Your task to perform on an android device: Add "logitech g pro" to the cart on walmart, then select checkout. Image 0: 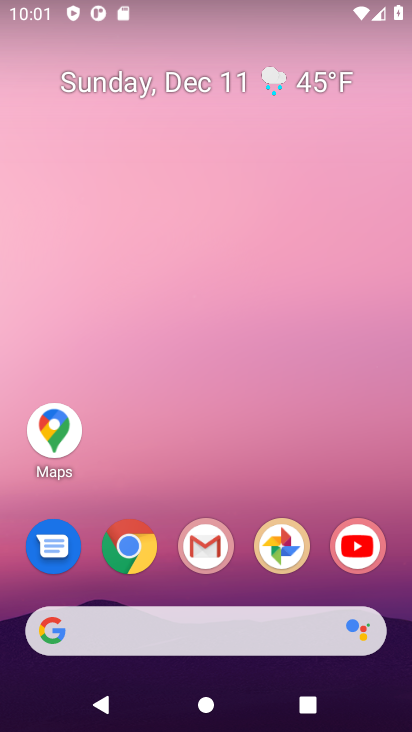
Step 0: click (127, 548)
Your task to perform on an android device: Add "logitech g pro" to the cart on walmart, then select checkout. Image 1: 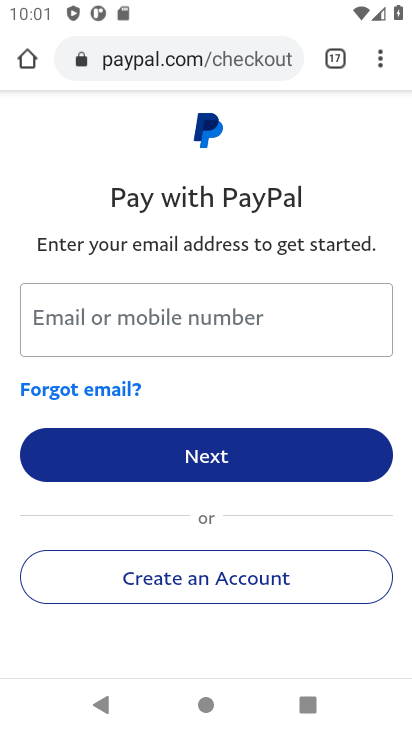
Step 1: click (191, 58)
Your task to perform on an android device: Add "logitech g pro" to the cart on walmart, then select checkout. Image 2: 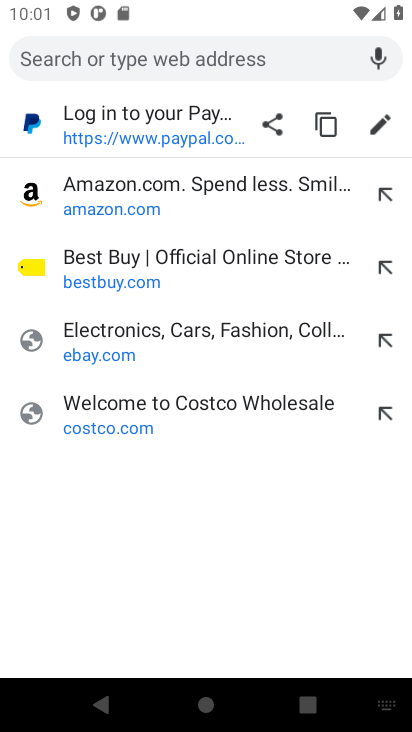
Step 2: type "walmart.com"
Your task to perform on an android device: Add "logitech g pro" to the cart on walmart, then select checkout. Image 3: 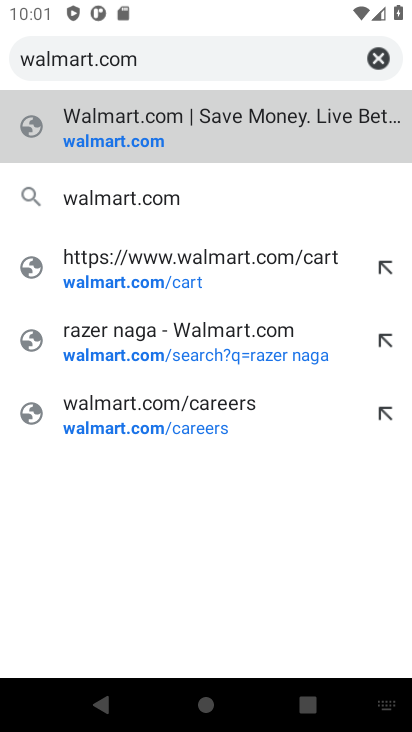
Step 3: click (138, 144)
Your task to perform on an android device: Add "logitech g pro" to the cart on walmart, then select checkout. Image 4: 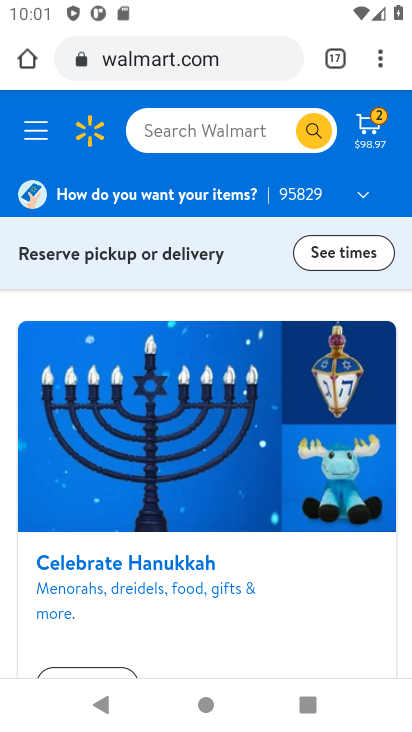
Step 4: click (157, 123)
Your task to perform on an android device: Add "logitech g pro" to the cart on walmart, then select checkout. Image 5: 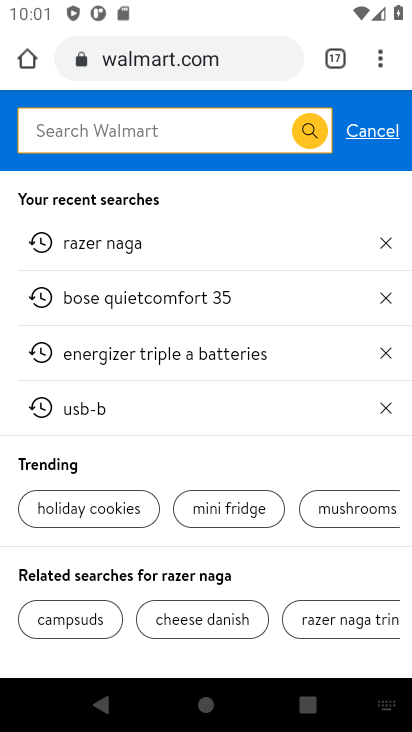
Step 5: type "logitech g pro"
Your task to perform on an android device: Add "logitech g pro" to the cart on walmart, then select checkout. Image 6: 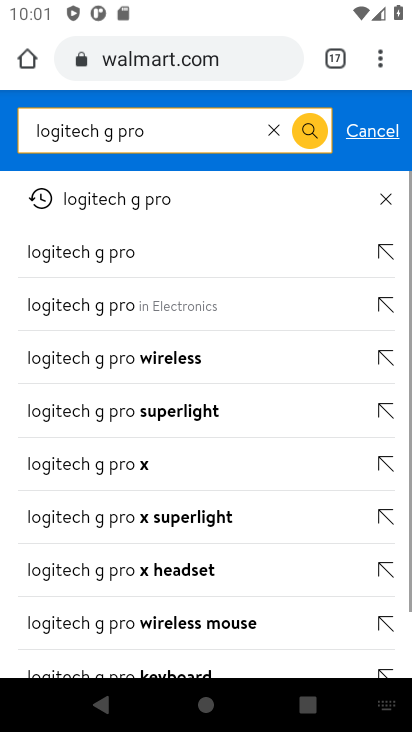
Step 6: click (142, 203)
Your task to perform on an android device: Add "logitech g pro" to the cart on walmart, then select checkout. Image 7: 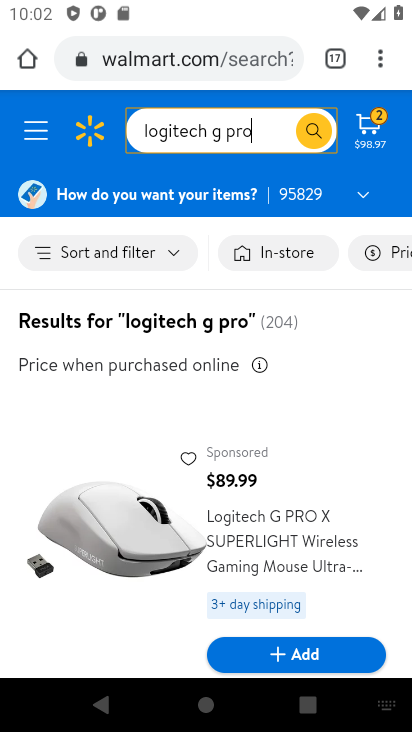
Step 7: drag from (254, 411) to (270, 190)
Your task to perform on an android device: Add "logitech g pro" to the cart on walmart, then select checkout. Image 8: 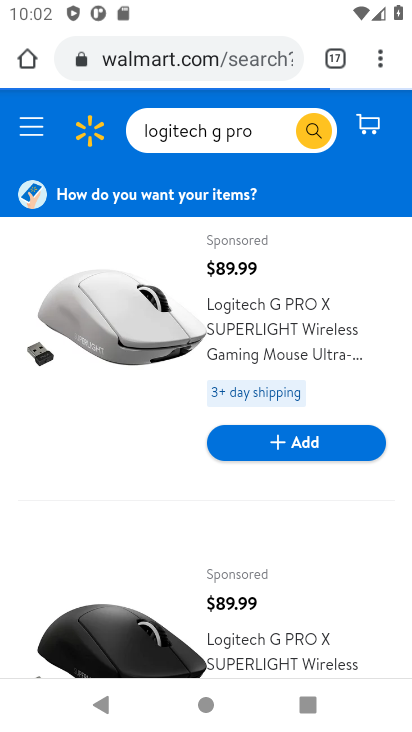
Step 8: click (295, 444)
Your task to perform on an android device: Add "logitech g pro" to the cart on walmart, then select checkout. Image 9: 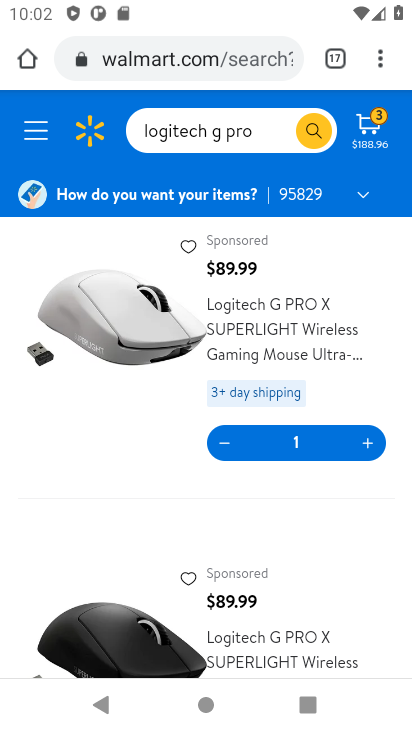
Step 9: click (374, 130)
Your task to perform on an android device: Add "logitech g pro" to the cart on walmart, then select checkout. Image 10: 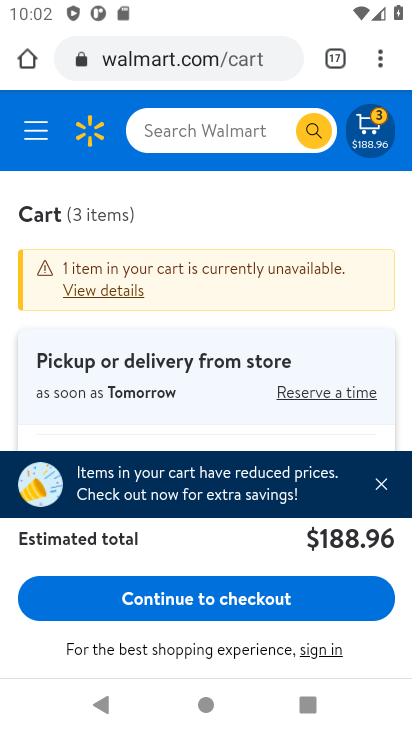
Step 10: click (200, 608)
Your task to perform on an android device: Add "logitech g pro" to the cart on walmart, then select checkout. Image 11: 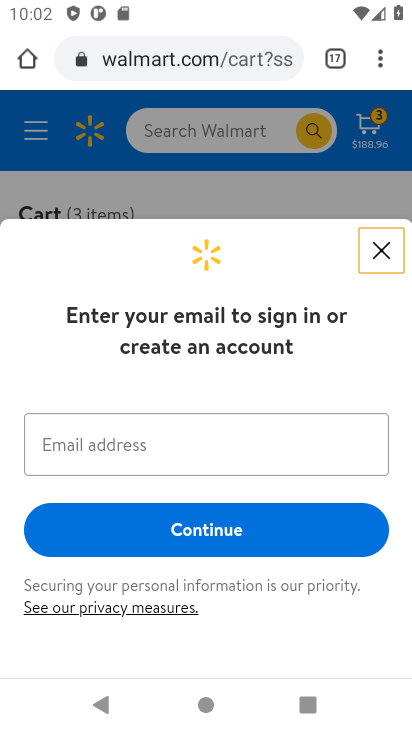
Step 11: task complete